Your task to perform on an android device: all mails in gmail Image 0: 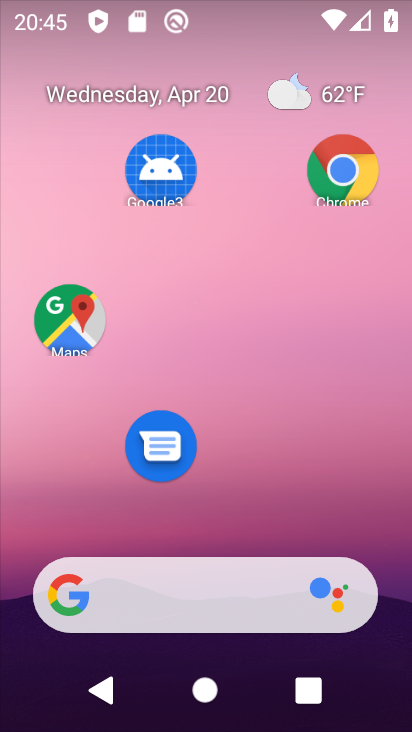
Step 0: drag from (316, 498) to (237, 62)
Your task to perform on an android device: all mails in gmail Image 1: 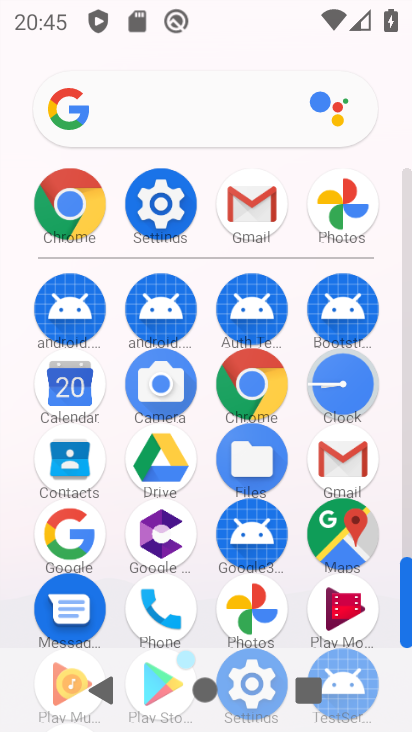
Step 1: click (260, 208)
Your task to perform on an android device: all mails in gmail Image 2: 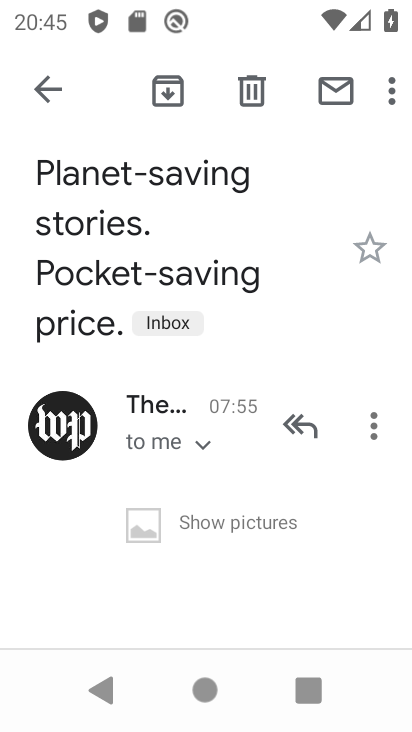
Step 2: click (43, 88)
Your task to perform on an android device: all mails in gmail Image 3: 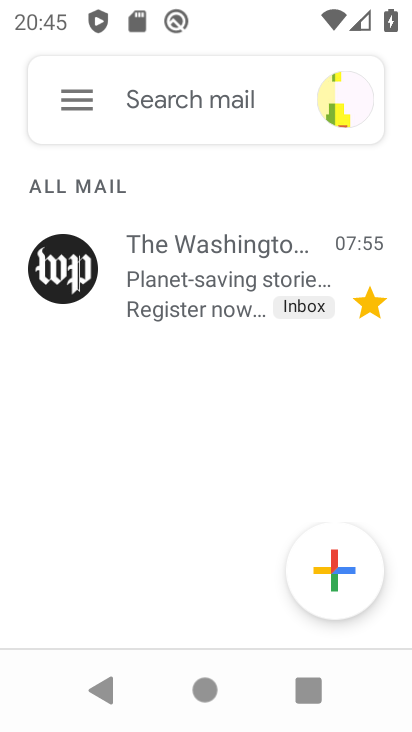
Step 3: click (71, 94)
Your task to perform on an android device: all mails in gmail Image 4: 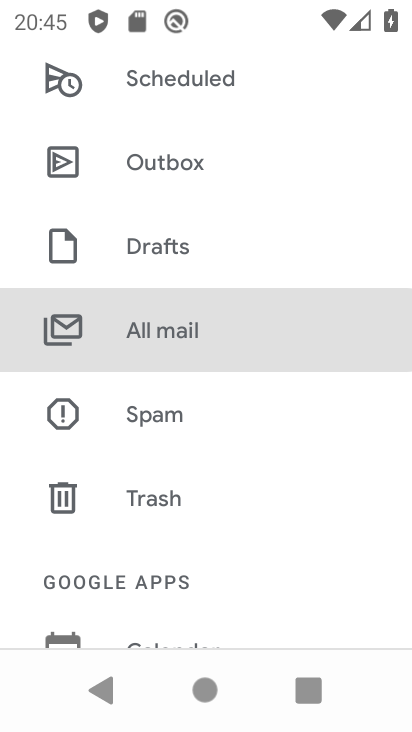
Step 4: click (163, 335)
Your task to perform on an android device: all mails in gmail Image 5: 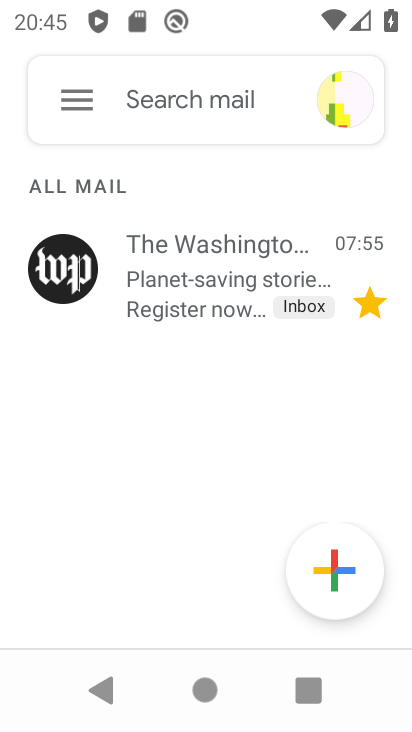
Step 5: task complete